Your task to perform on an android device: Toggle the flashlight Image 0: 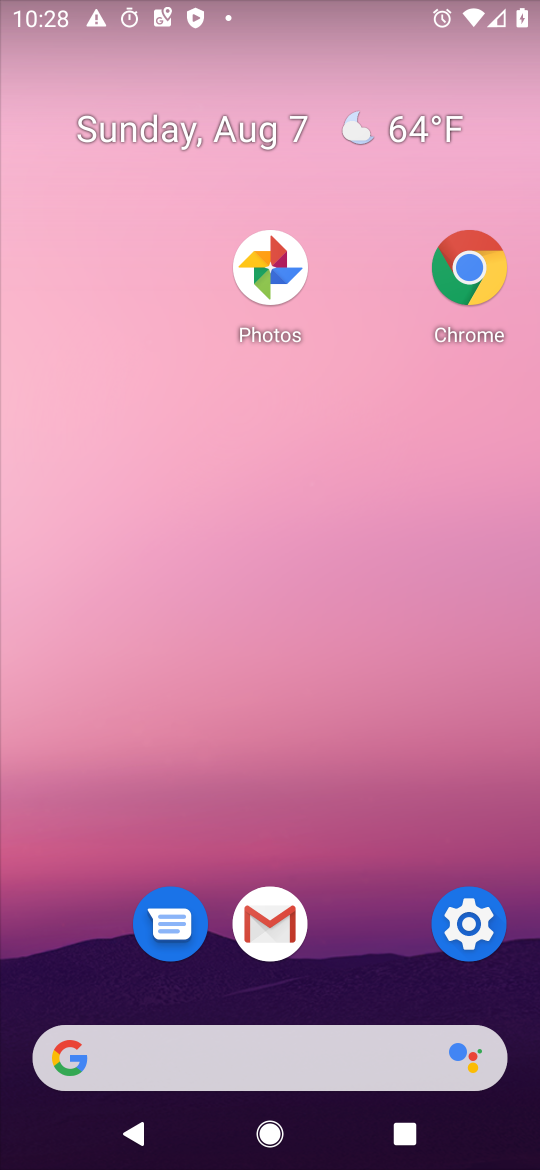
Step 0: press home button
Your task to perform on an android device: Toggle the flashlight Image 1: 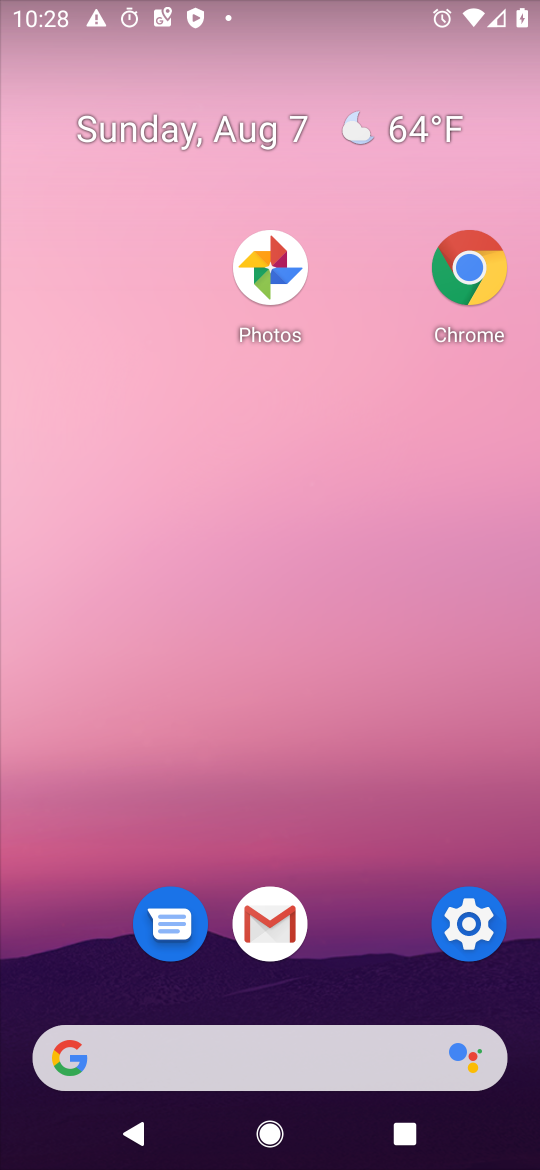
Step 1: drag from (318, 1000) to (377, 319)
Your task to perform on an android device: Toggle the flashlight Image 2: 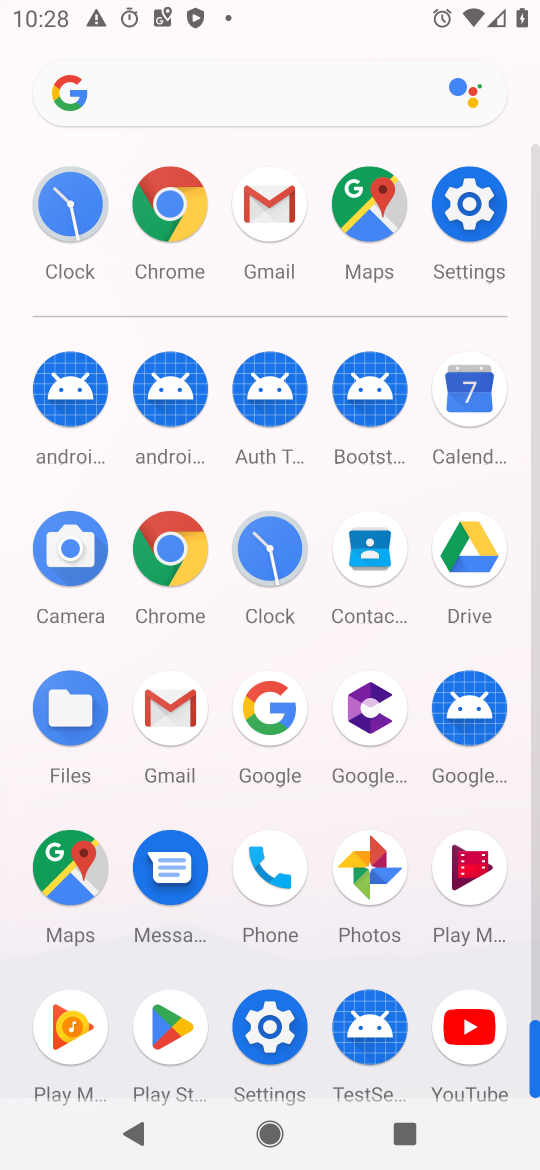
Step 2: click (460, 214)
Your task to perform on an android device: Toggle the flashlight Image 3: 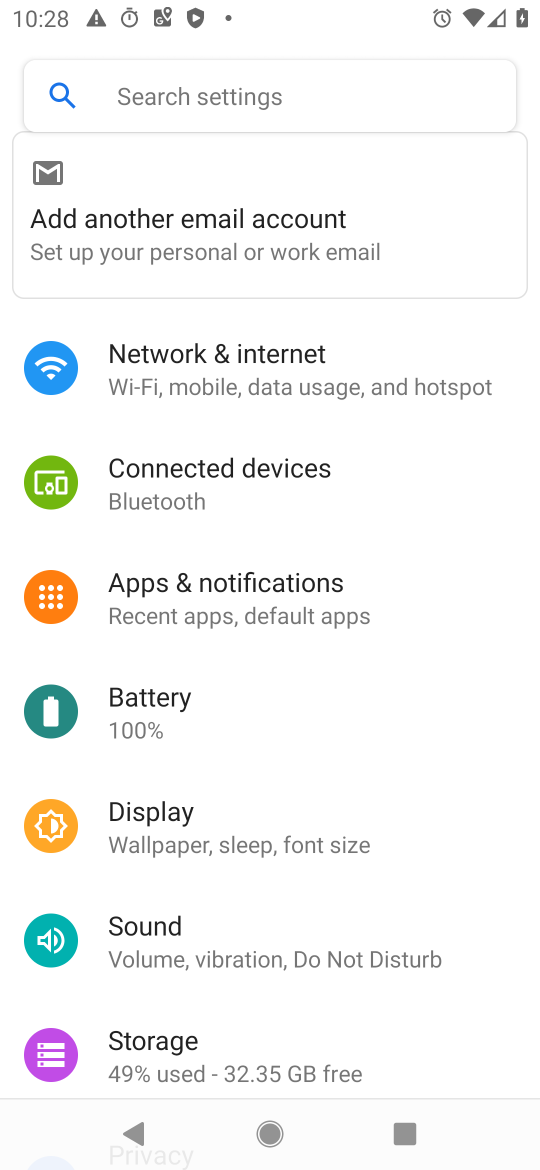
Step 3: click (226, 87)
Your task to perform on an android device: Toggle the flashlight Image 4: 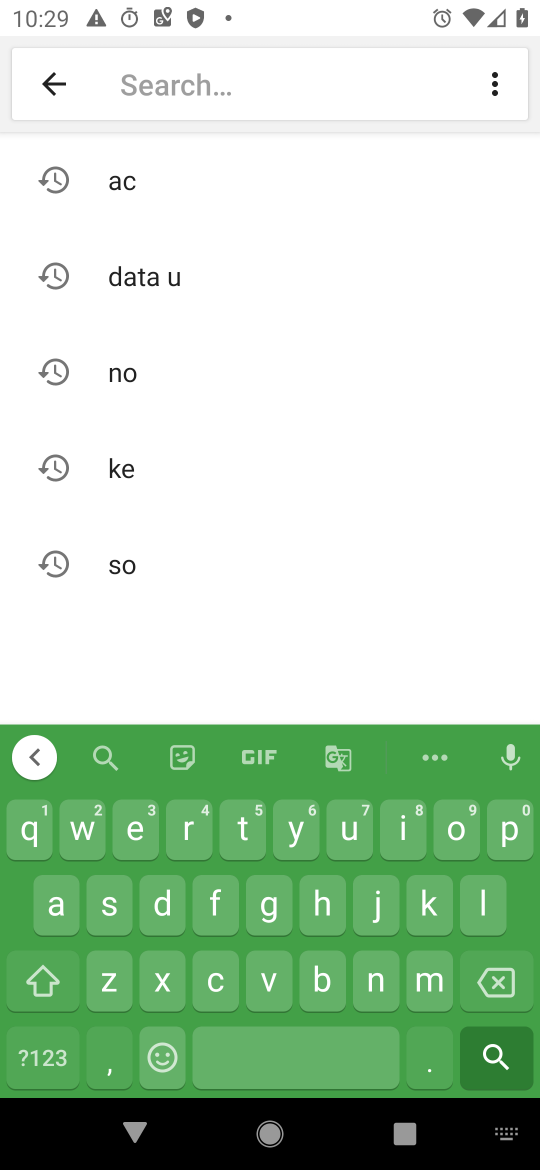
Step 4: click (204, 928)
Your task to perform on an android device: Toggle the flashlight Image 5: 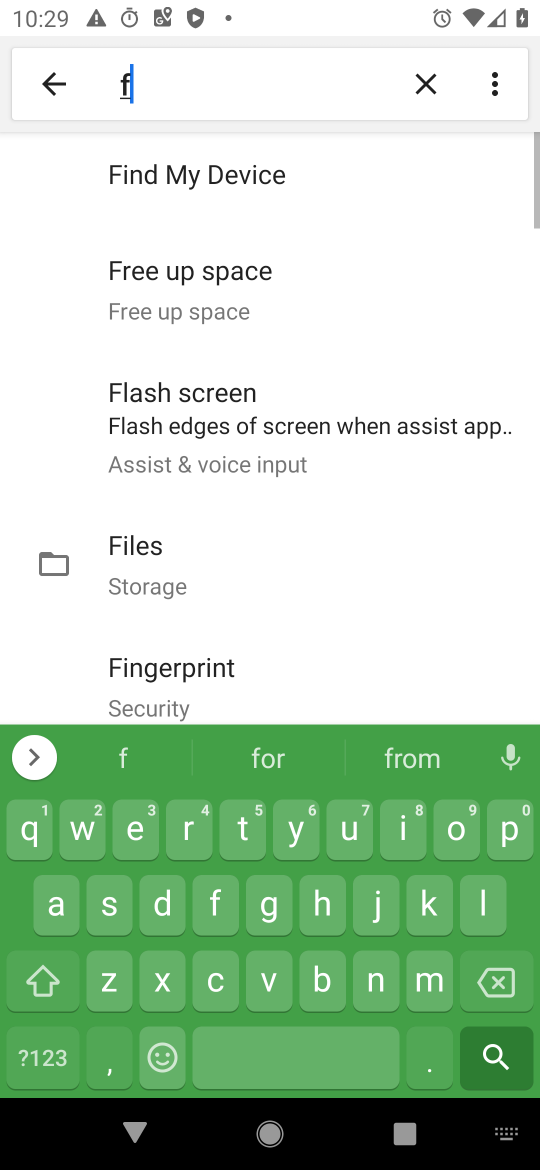
Step 5: click (484, 912)
Your task to perform on an android device: Toggle the flashlight Image 6: 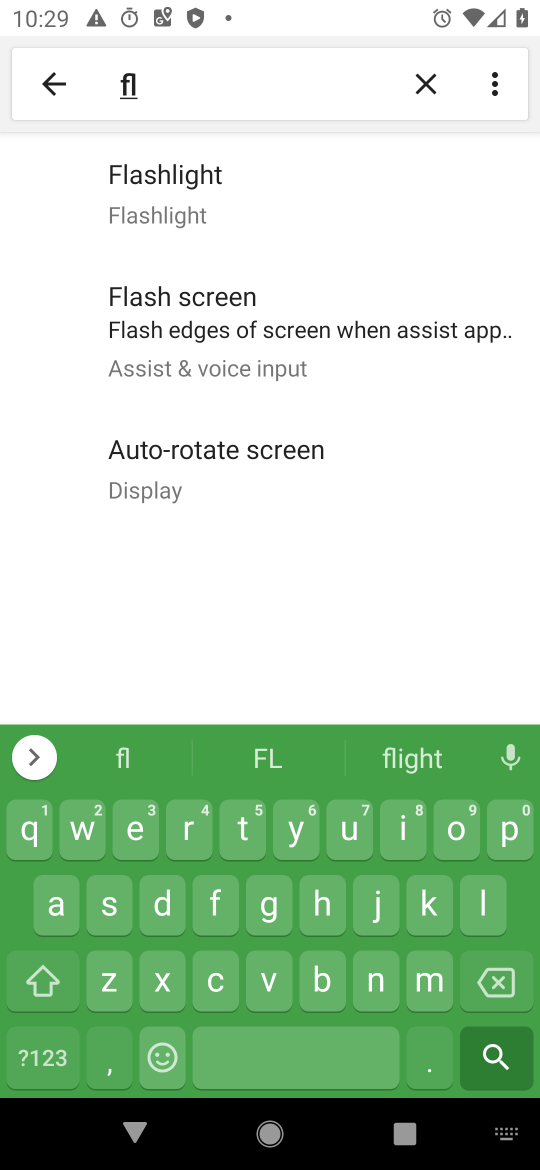
Step 6: click (177, 186)
Your task to perform on an android device: Toggle the flashlight Image 7: 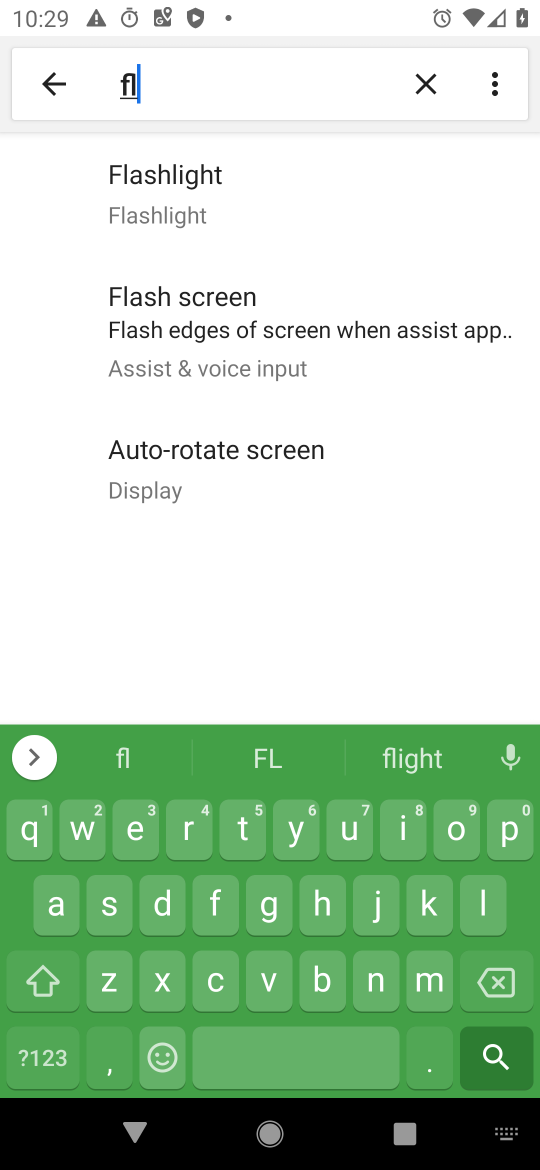
Step 7: task complete